Your task to perform on an android device: Open calendar and show me the first week of next month Image 0: 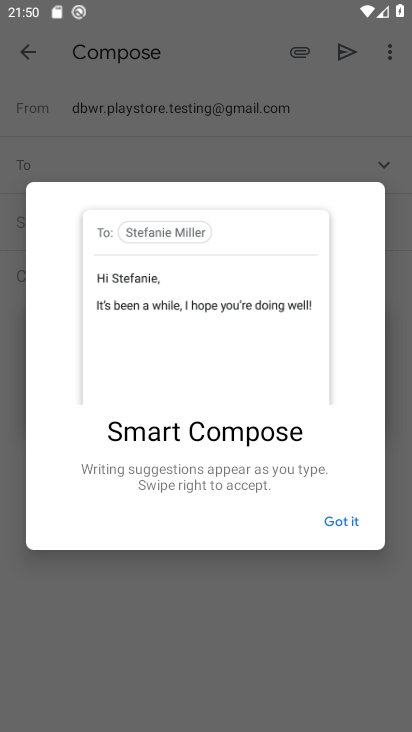
Step 0: press home button
Your task to perform on an android device: Open calendar and show me the first week of next month Image 1: 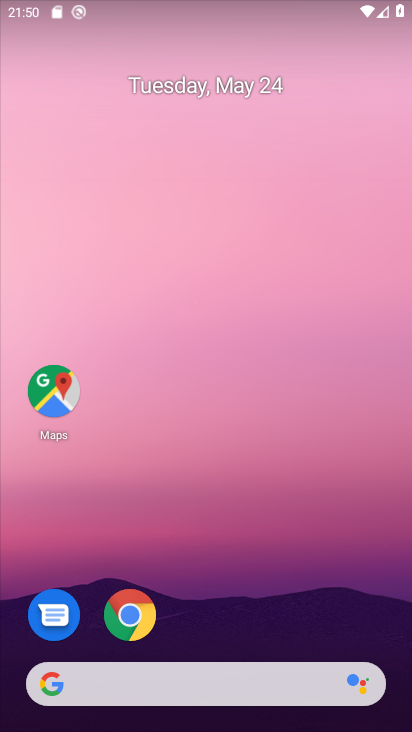
Step 1: drag from (287, 585) to (263, 176)
Your task to perform on an android device: Open calendar and show me the first week of next month Image 2: 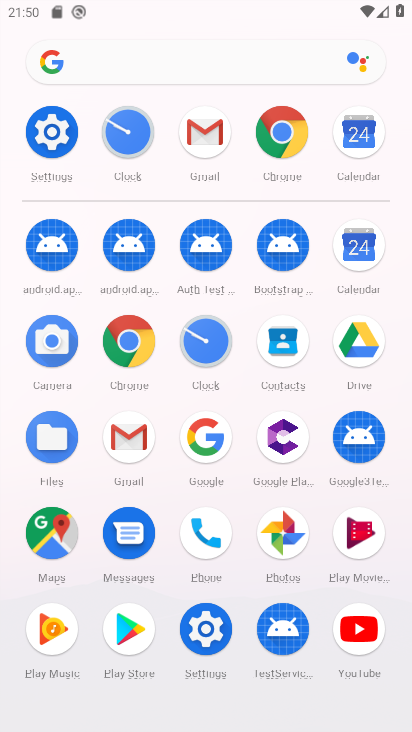
Step 2: click (366, 237)
Your task to perform on an android device: Open calendar and show me the first week of next month Image 3: 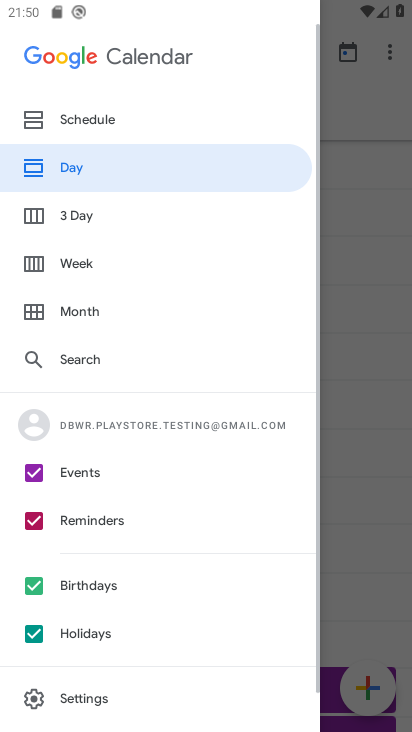
Step 3: click (82, 324)
Your task to perform on an android device: Open calendar and show me the first week of next month Image 4: 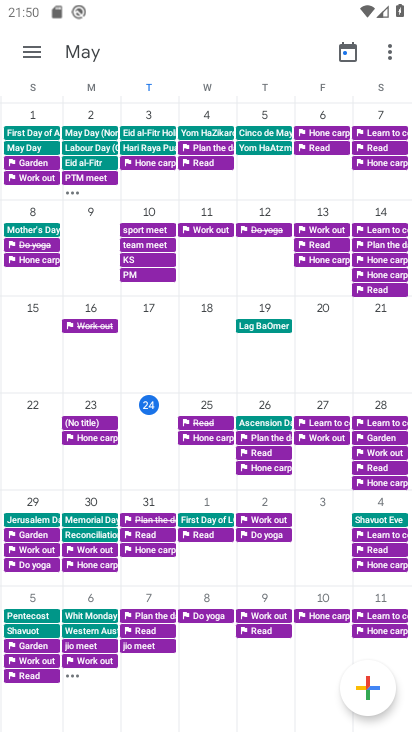
Step 4: task complete